Your task to perform on an android device: turn off location Image 0: 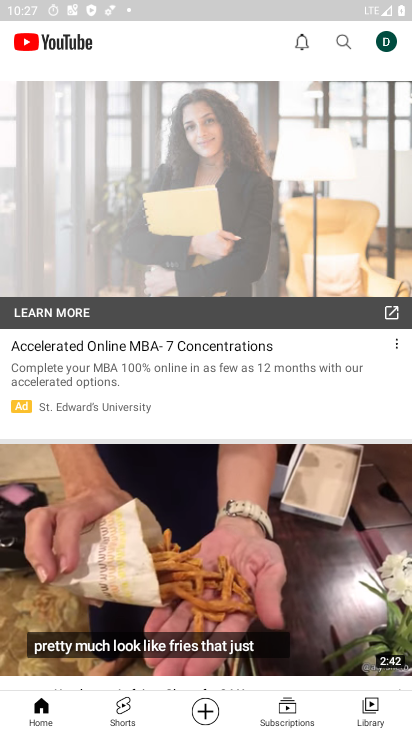
Step 0: press home button
Your task to perform on an android device: turn off location Image 1: 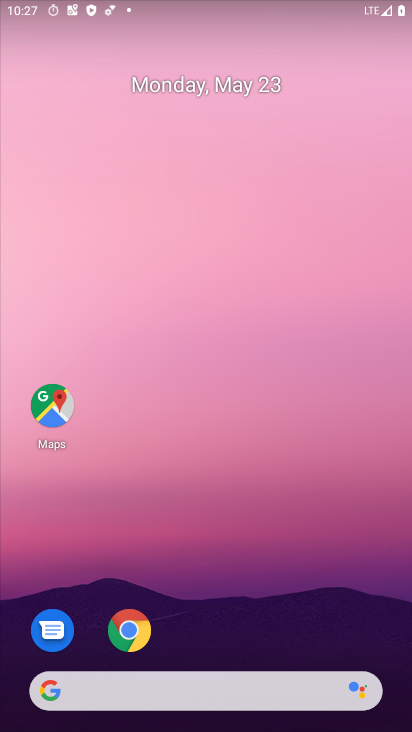
Step 1: drag from (232, 668) to (290, 11)
Your task to perform on an android device: turn off location Image 2: 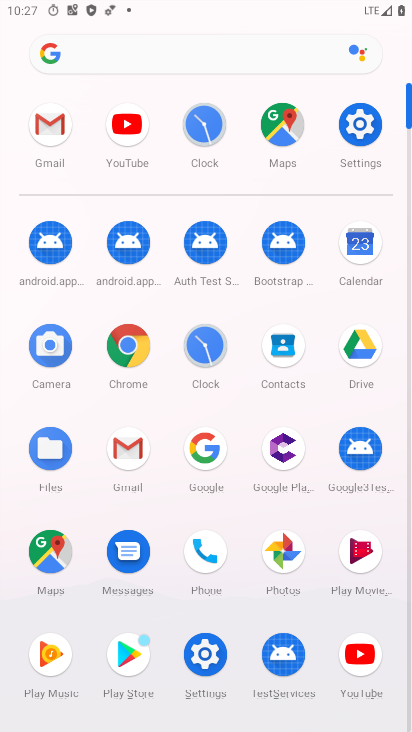
Step 2: click (365, 123)
Your task to perform on an android device: turn off location Image 3: 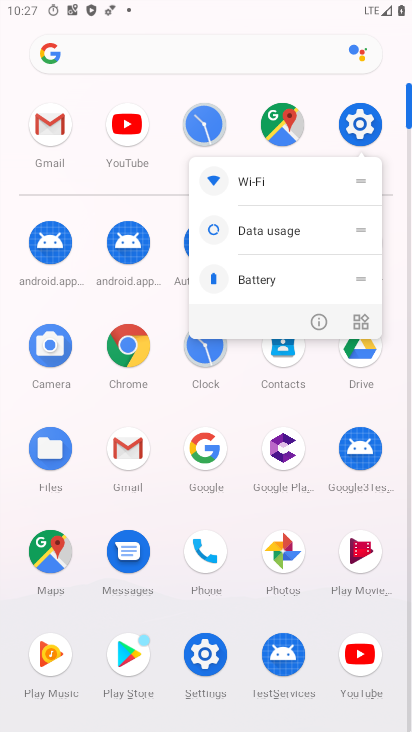
Step 3: click (365, 123)
Your task to perform on an android device: turn off location Image 4: 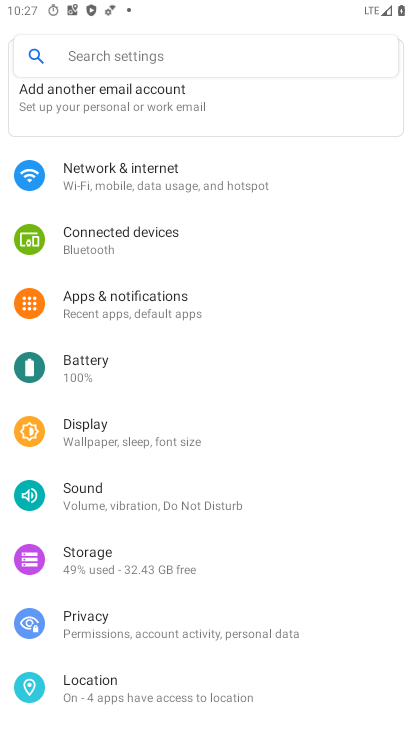
Step 4: click (75, 686)
Your task to perform on an android device: turn off location Image 5: 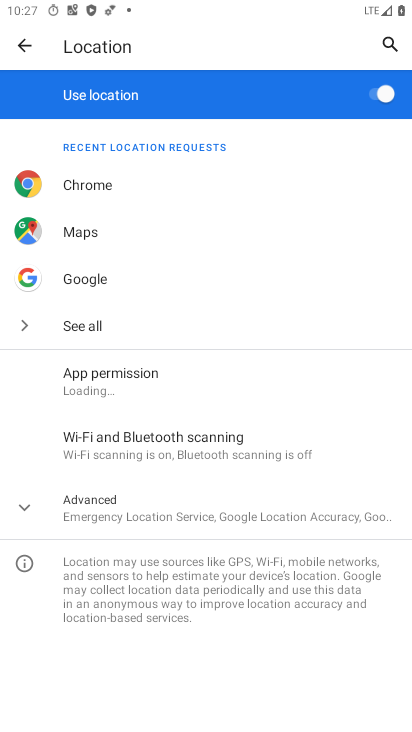
Step 5: click (389, 90)
Your task to perform on an android device: turn off location Image 6: 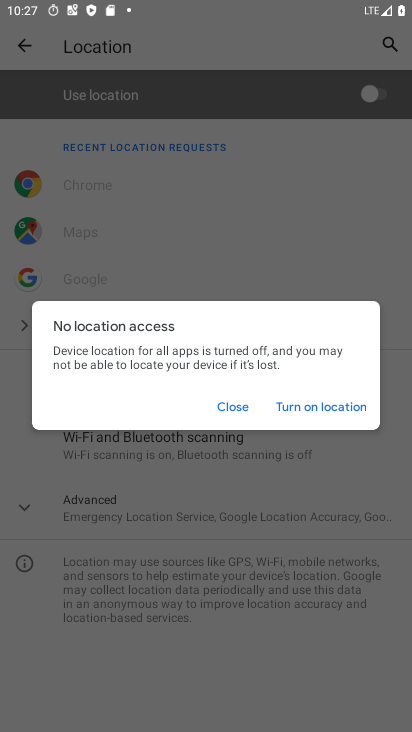
Step 6: click (225, 411)
Your task to perform on an android device: turn off location Image 7: 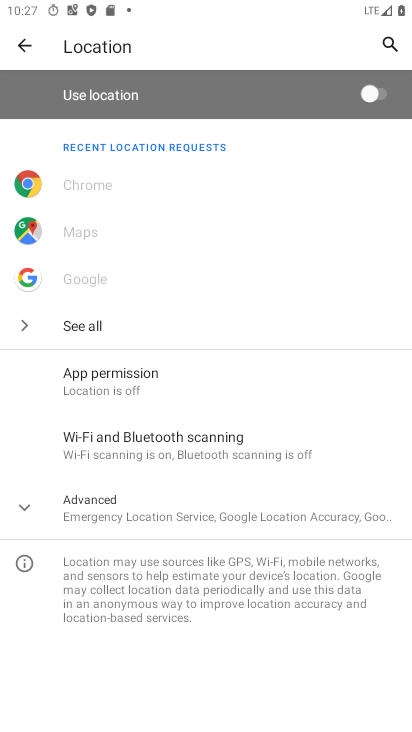
Step 7: task complete